Your task to perform on an android device: turn on priority inbox in the gmail app Image 0: 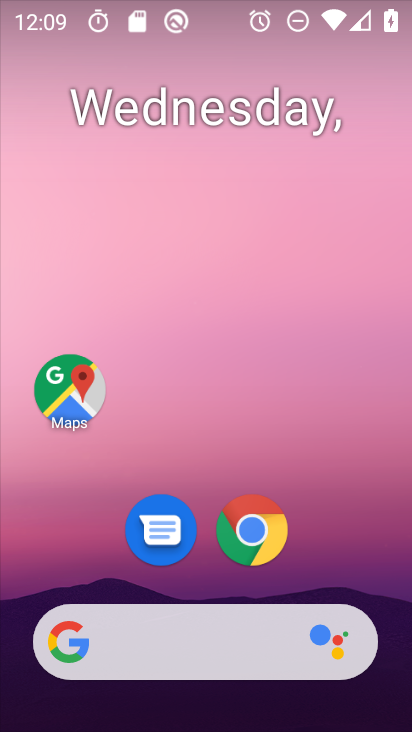
Step 0: drag from (318, 565) to (283, 19)
Your task to perform on an android device: turn on priority inbox in the gmail app Image 1: 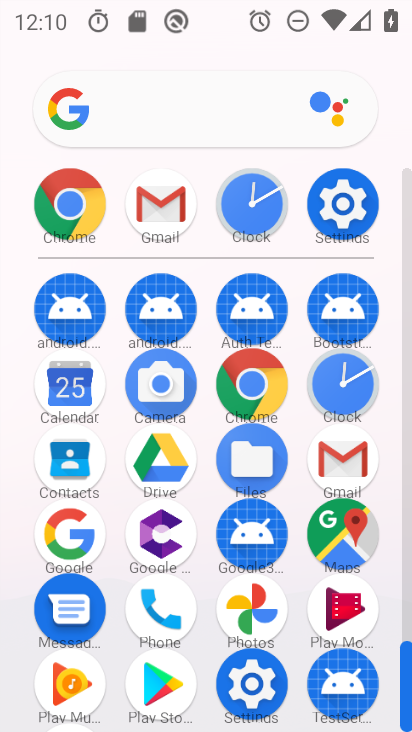
Step 1: click (150, 203)
Your task to perform on an android device: turn on priority inbox in the gmail app Image 2: 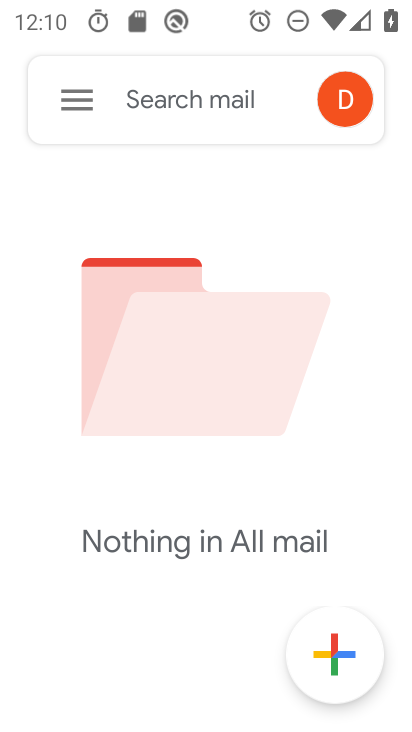
Step 2: click (68, 105)
Your task to perform on an android device: turn on priority inbox in the gmail app Image 3: 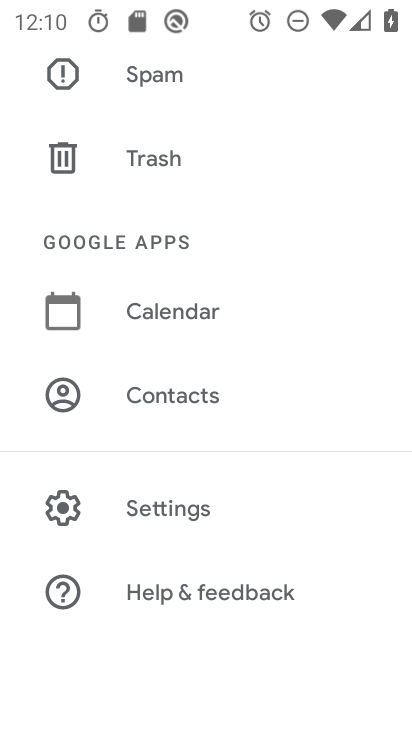
Step 3: click (192, 501)
Your task to perform on an android device: turn on priority inbox in the gmail app Image 4: 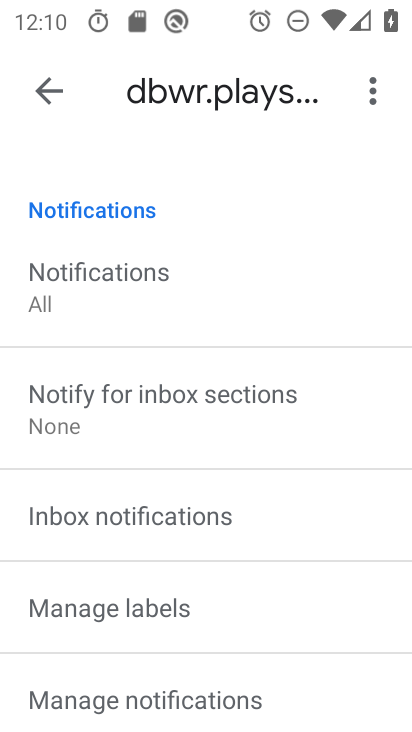
Step 4: drag from (191, 593) to (227, 207)
Your task to perform on an android device: turn on priority inbox in the gmail app Image 5: 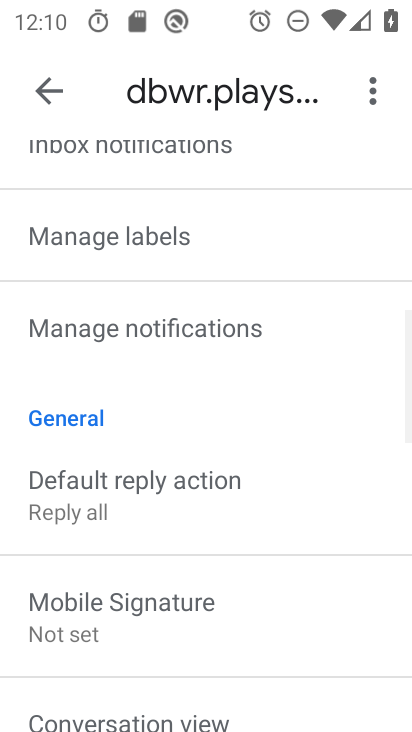
Step 5: drag from (224, 244) to (233, 662)
Your task to perform on an android device: turn on priority inbox in the gmail app Image 6: 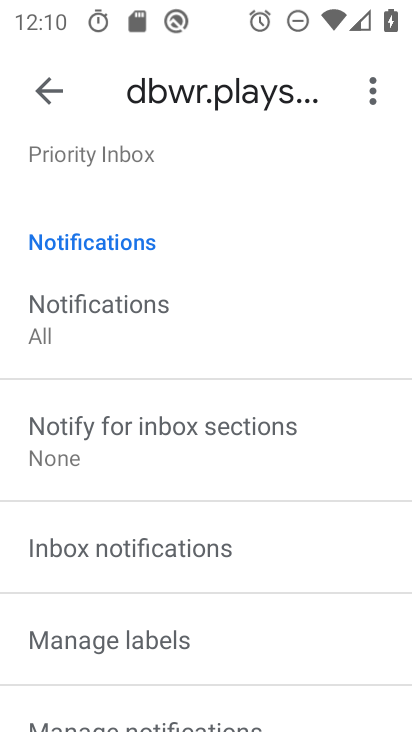
Step 6: drag from (258, 294) to (215, 573)
Your task to perform on an android device: turn on priority inbox in the gmail app Image 7: 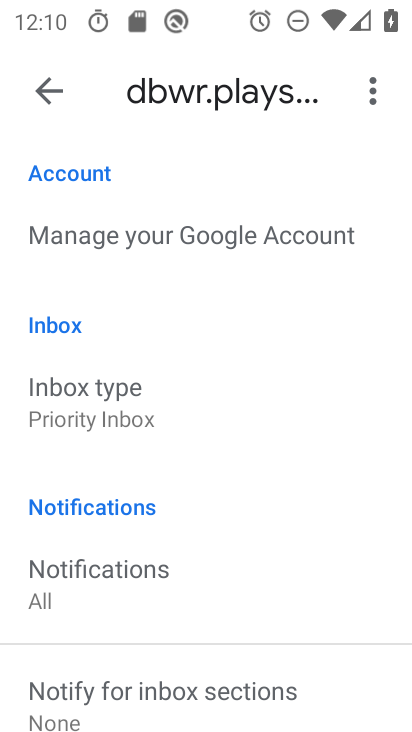
Step 7: click (97, 384)
Your task to perform on an android device: turn on priority inbox in the gmail app Image 8: 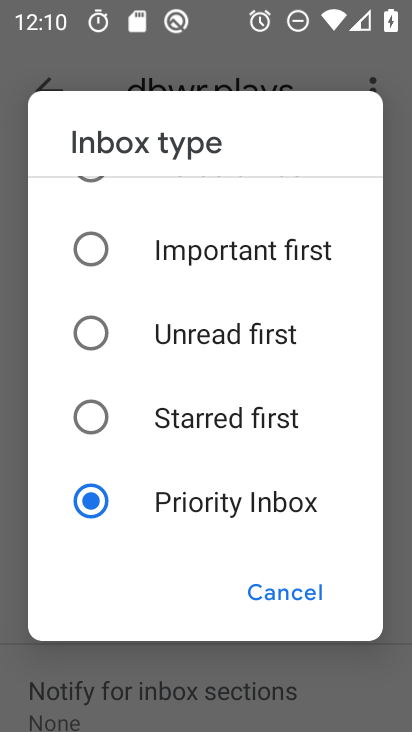
Step 8: task complete